Your task to perform on an android device: set default search engine in the chrome app Image 0: 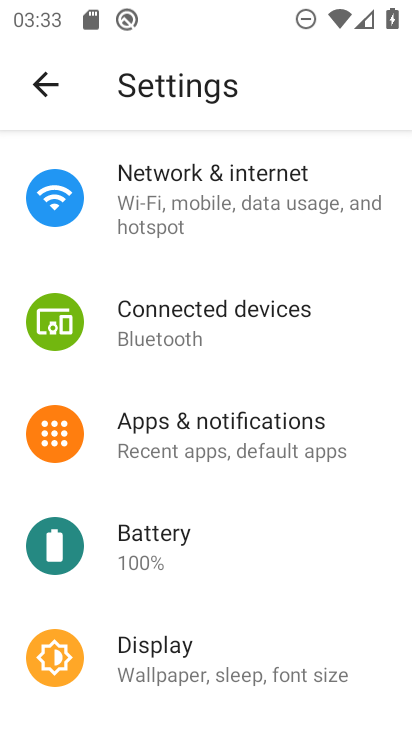
Step 0: press home button
Your task to perform on an android device: set default search engine in the chrome app Image 1: 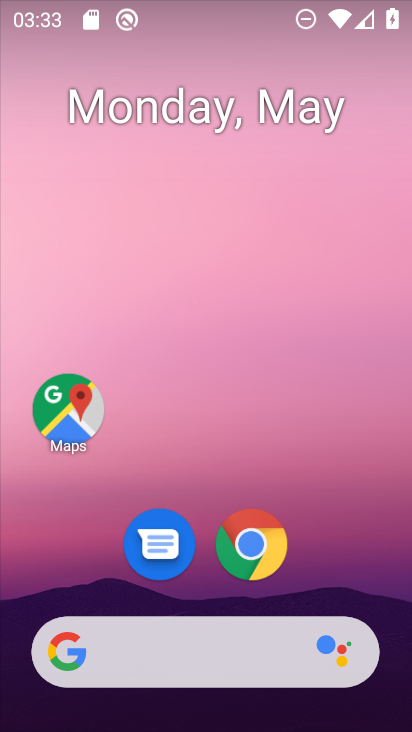
Step 1: drag from (387, 594) to (390, 242)
Your task to perform on an android device: set default search engine in the chrome app Image 2: 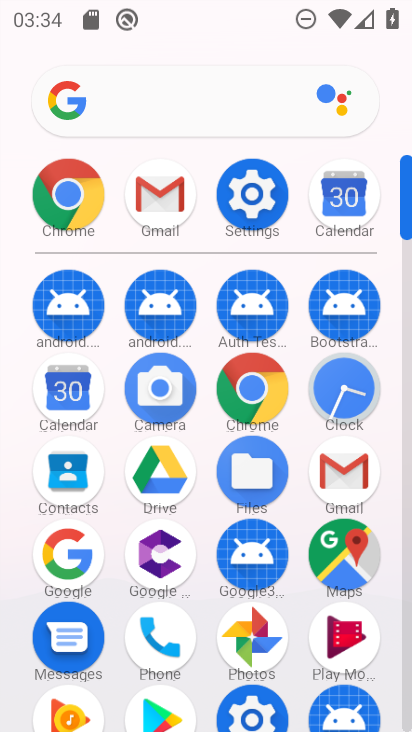
Step 2: click (278, 395)
Your task to perform on an android device: set default search engine in the chrome app Image 3: 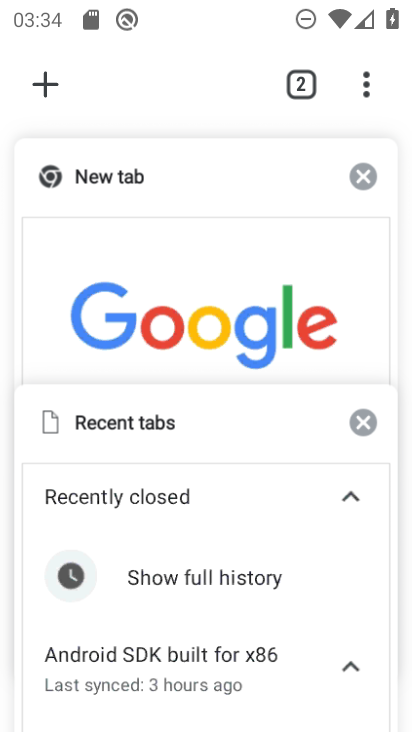
Step 3: click (366, 96)
Your task to perform on an android device: set default search engine in the chrome app Image 4: 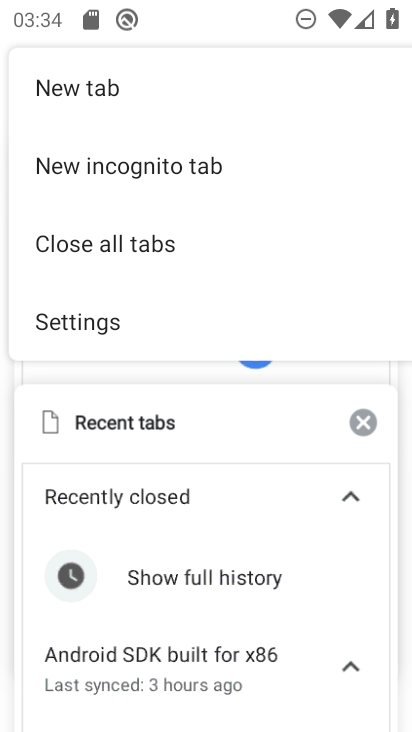
Step 4: click (120, 328)
Your task to perform on an android device: set default search engine in the chrome app Image 5: 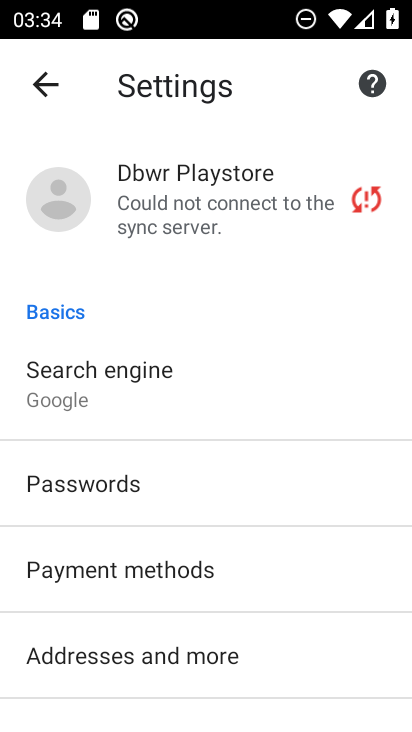
Step 5: drag from (307, 566) to (317, 516)
Your task to perform on an android device: set default search engine in the chrome app Image 6: 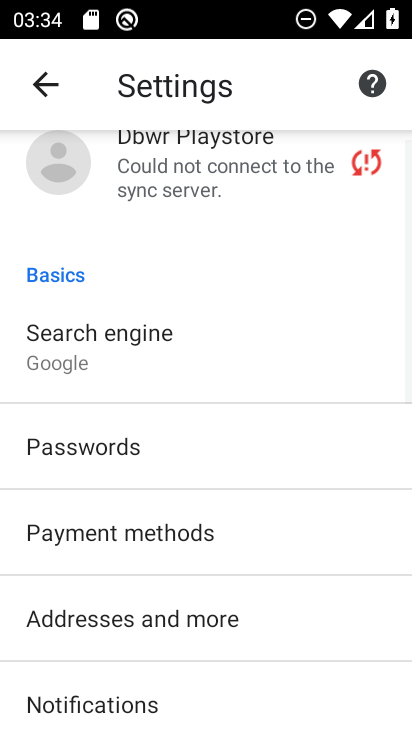
Step 6: drag from (319, 585) to (324, 520)
Your task to perform on an android device: set default search engine in the chrome app Image 7: 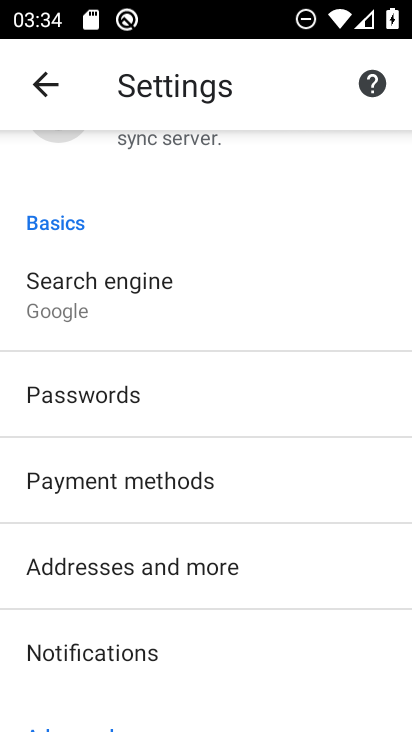
Step 7: drag from (321, 607) to (333, 542)
Your task to perform on an android device: set default search engine in the chrome app Image 8: 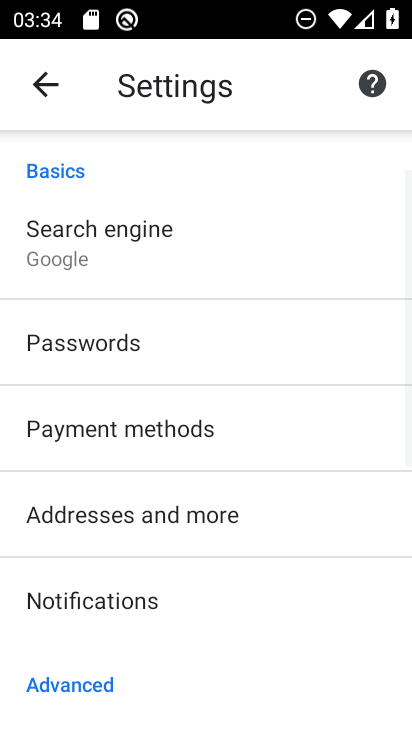
Step 8: drag from (313, 611) to (323, 544)
Your task to perform on an android device: set default search engine in the chrome app Image 9: 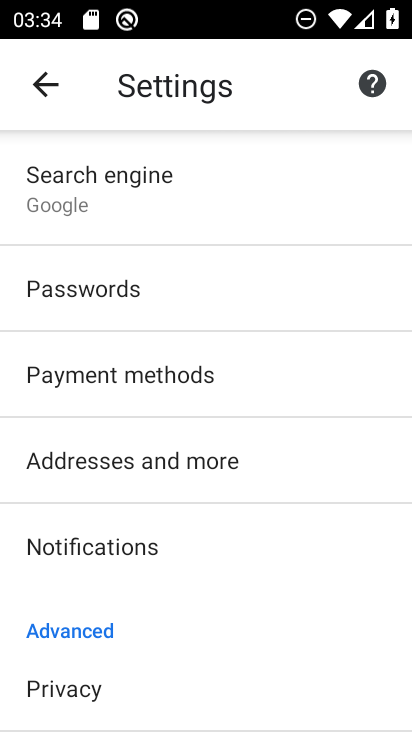
Step 9: drag from (318, 598) to (315, 503)
Your task to perform on an android device: set default search engine in the chrome app Image 10: 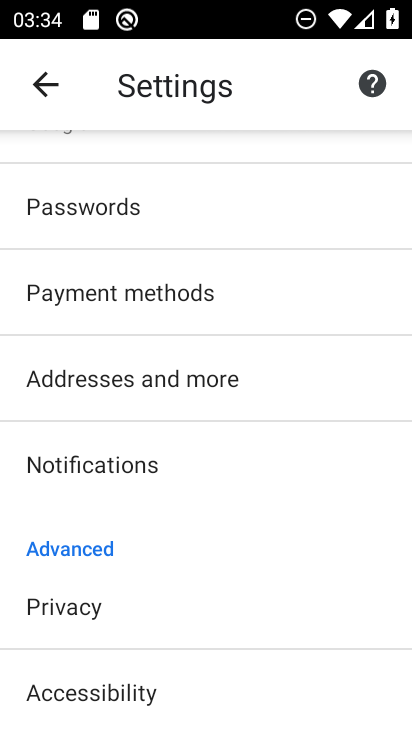
Step 10: drag from (294, 557) to (292, 468)
Your task to perform on an android device: set default search engine in the chrome app Image 11: 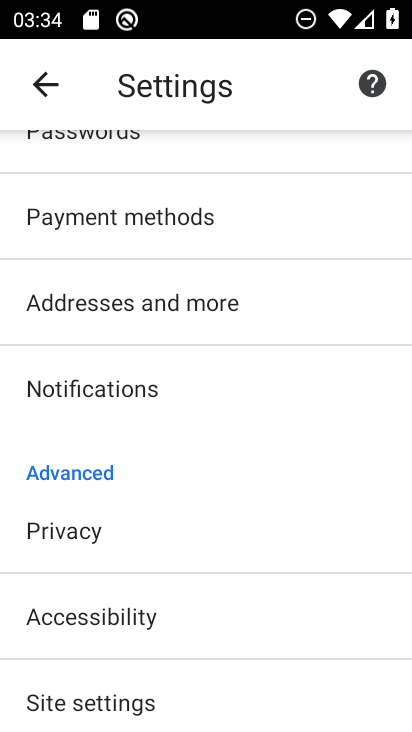
Step 11: drag from (283, 562) to (282, 462)
Your task to perform on an android device: set default search engine in the chrome app Image 12: 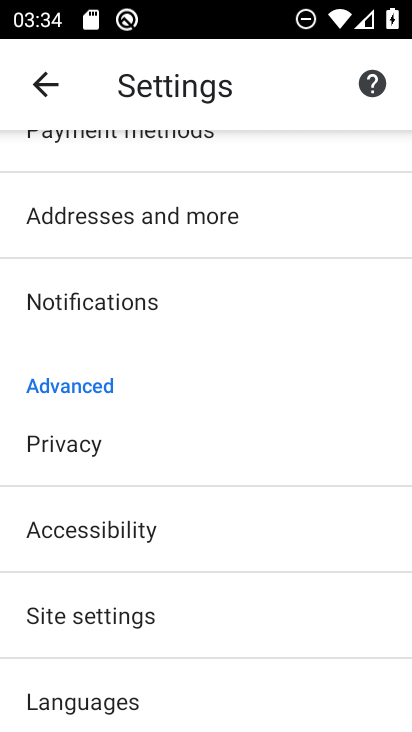
Step 12: drag from (274, 568) to (273, 440)
Your task to perform on an android device: set default search engine in the chrome app Image 13: 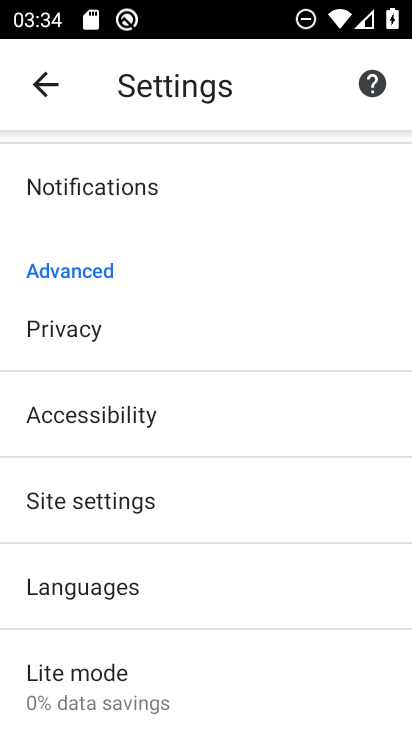
Step 13: drag from (260, 583) to (278, 438)
Your task to perform on an android device: set default search engine in the chrome app Image 14: 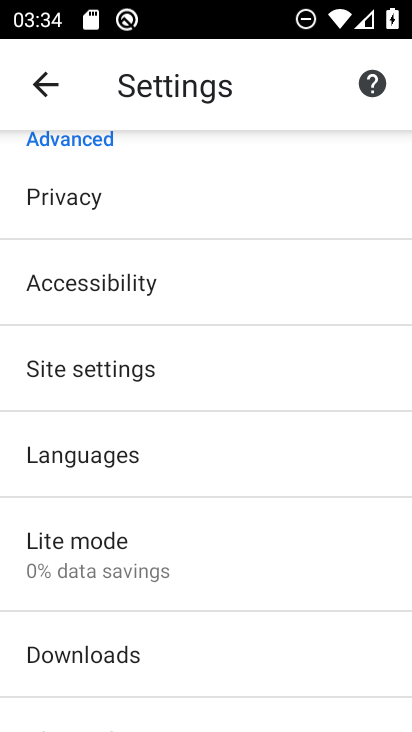
Step 14: drag from (273, 282) to (272, 395)
Your task to perform on an android device: set default search engine in the chrome app Image 15: 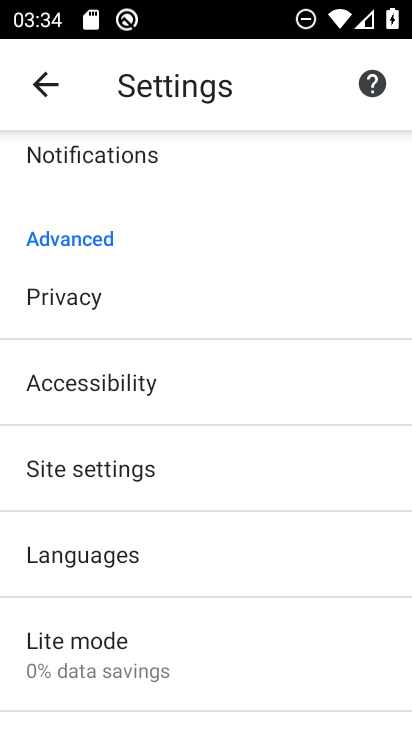
Step 15: drag from (298, 261) to (297, 385)
Your task to perform on an android device: set default search engine in the chrome app Image 16: 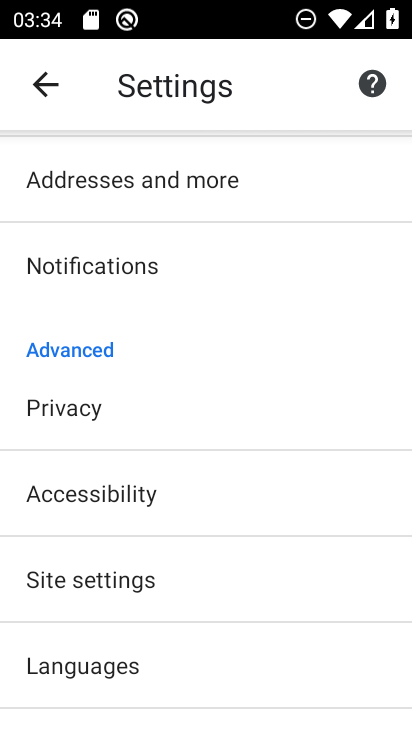
Step 16: drag from (279, 271) to (289, 397)
Your task to perform on an android device: set default search engine in the chrome app Image 17: 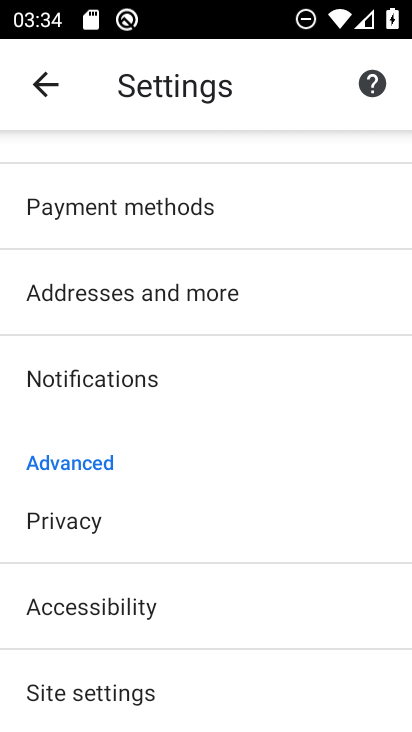
Step 17: drag from (297, 205) to (287, 350)
Your task to perform on an android device: set default search engine in the chrome app Image 18: 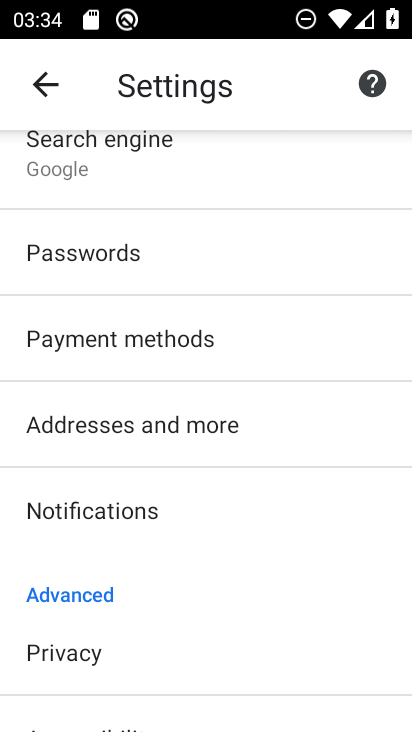
Step 18: drag from (247, 188) to (252, 326)
Your task to perform on an android device: set default search engine in the chrome app Image 19: 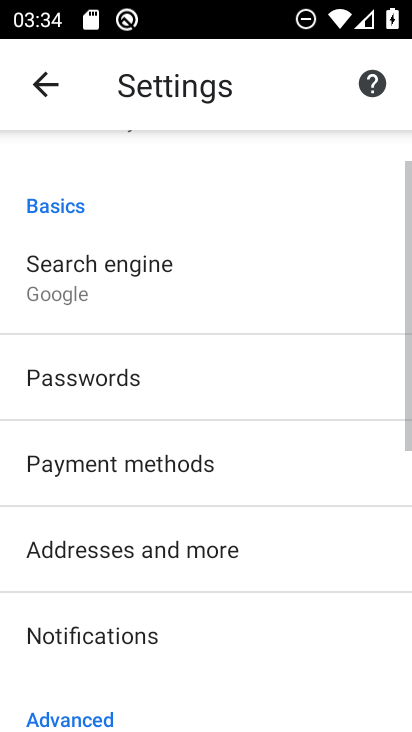
Step 19: click (143, 291)
Your task to perform on an android device: set default search engine in the chrome app Image 20: 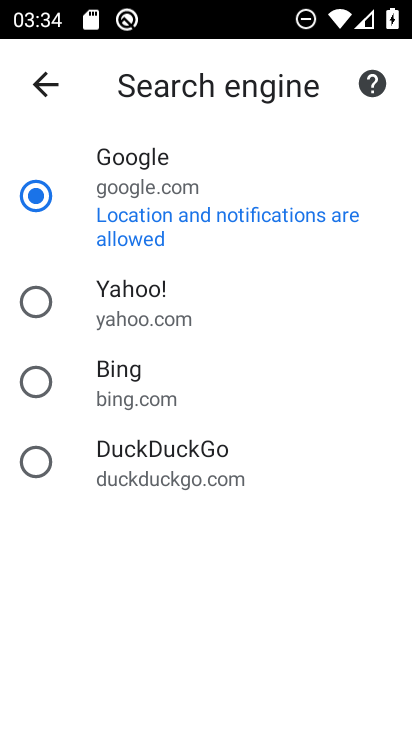
Step 20: click (128, 377)
Your task to perform on an android device: set default search engine in the chrome app Image 21: 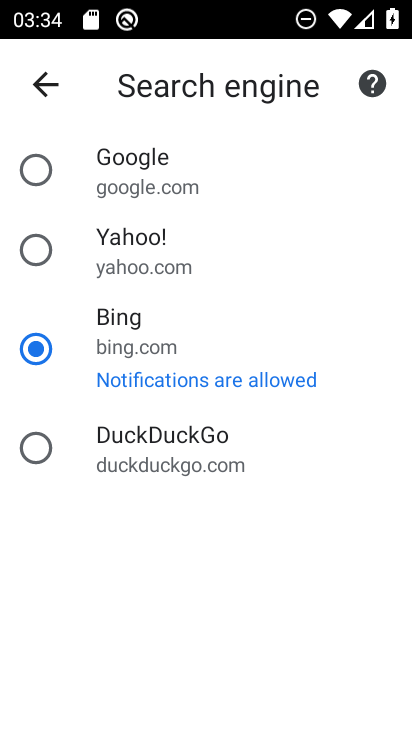
Step 21: task complete